Your task to perform on an android device: check out phone information Image 0: 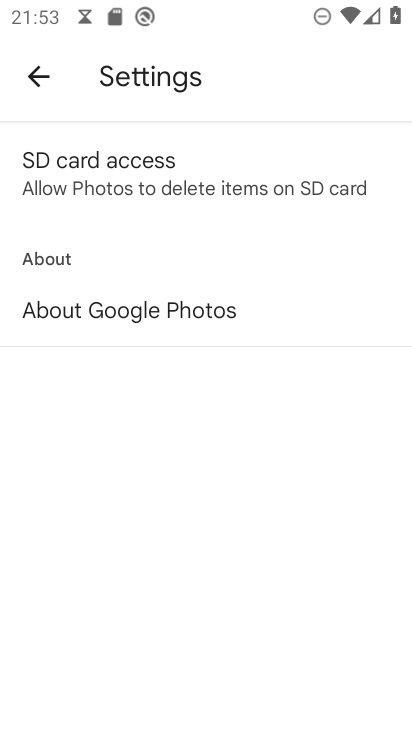
Step 0: press home button
Your task to perform on an android device: check out phone information Image 1: 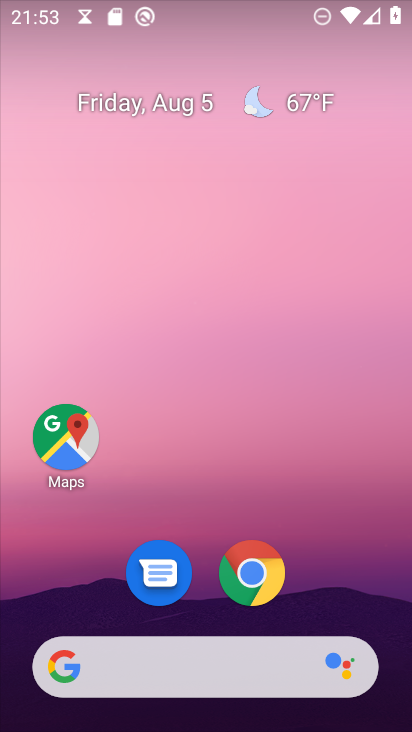
Step 1: drag from (188, 676) to (274, 97)
Your task to perform on an android device: check out phone information Image 2: 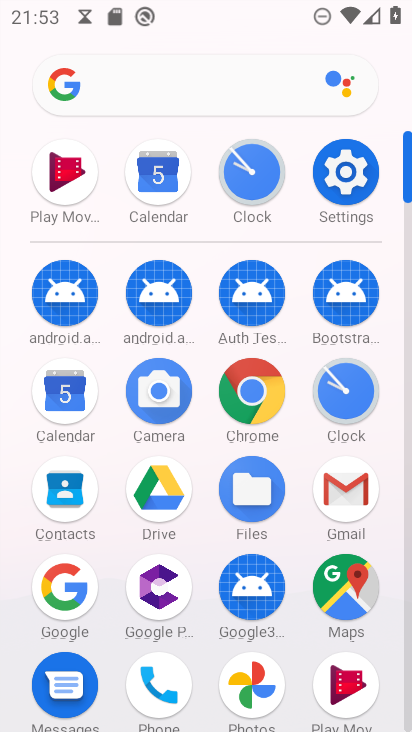
Step 2: drag from (202, 651) to (219, 321)
Your task to perform on an android device: check out phone information Image 3: 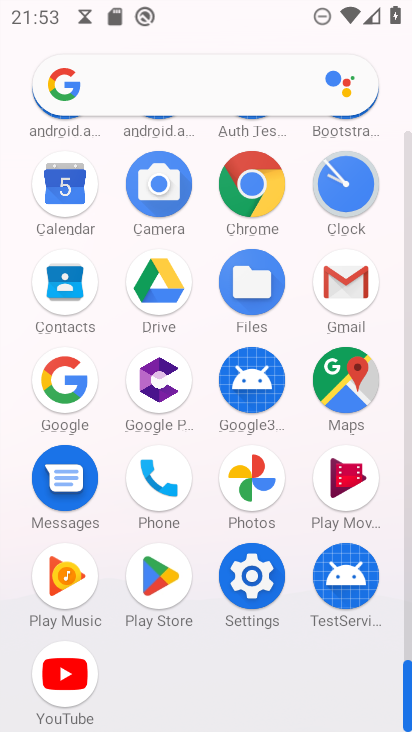
Step 3: click (252, 574)
Your task to perform on an android device: check out phone information Image 4: 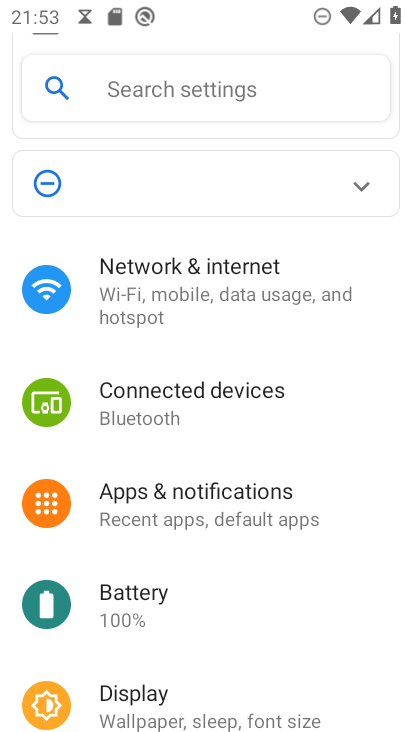
Step 4: drag from (234, 603) to (274, 433)
Your task to perform on an android device: check out phone information Image 5: 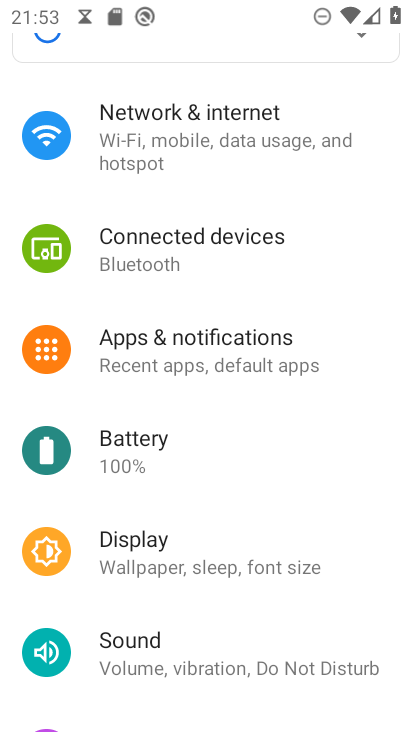
Step 5: drag from (212, 617) to (258, 478)
Your task to perform on an android device: check out phone information Image 6: 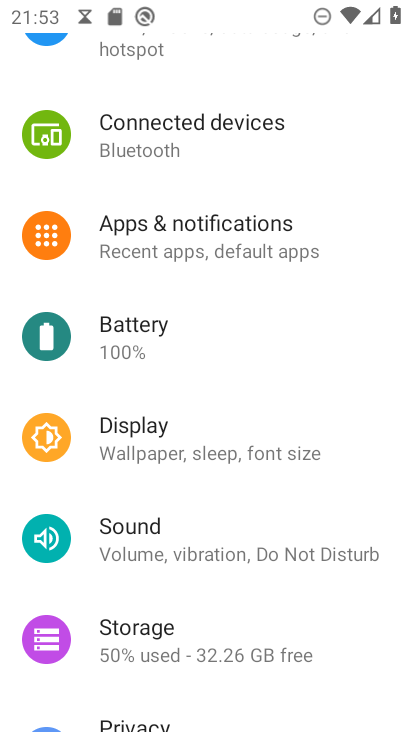
Step 6: drag from (208, 598) to (291, 461)
Your task to perform on an android device: check out phone information Image 7: 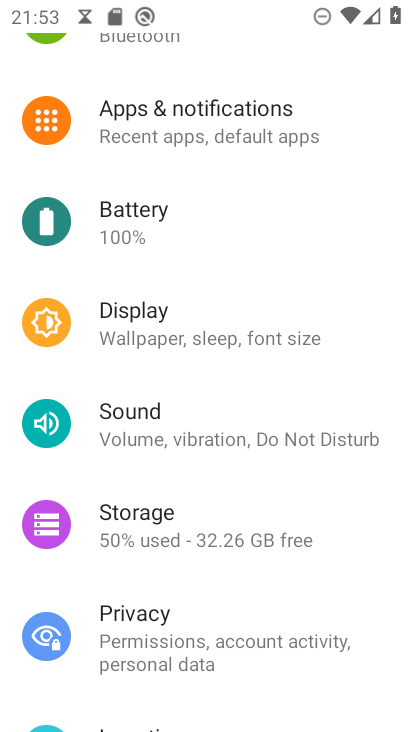
Step 7: drag from (252, 680) to (283, 569)
Your task to perform on an android device: check out phone information Image 8: 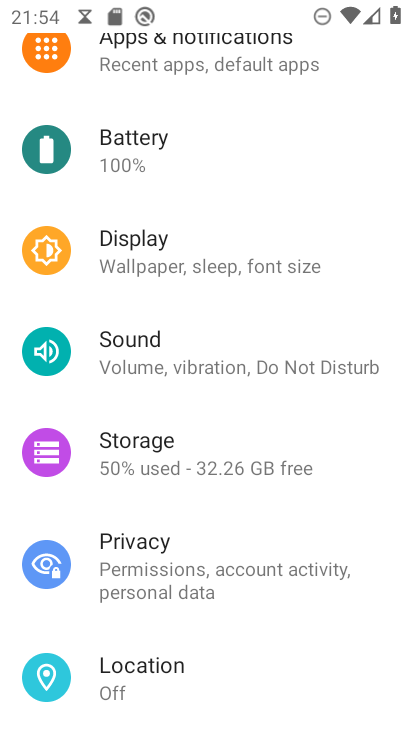
Step 8: drag from (203, 647) to (235, 412)
Your task to perform on an android device: check out phone information Image 9: 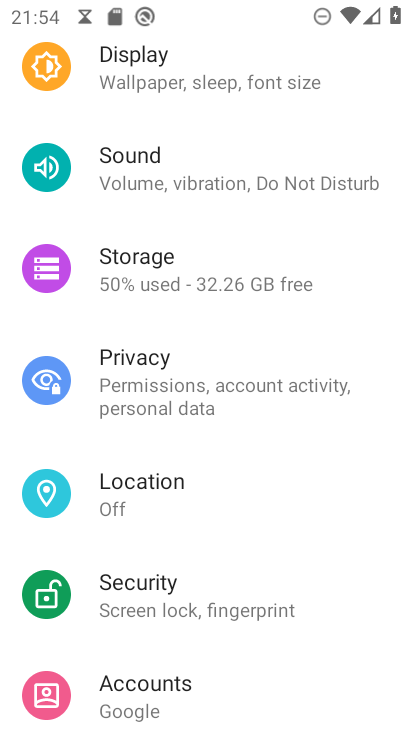
Step 9: drag from (228, 629) to (251, 535)
Your task to perform on an android device: check out phone information Image 10: 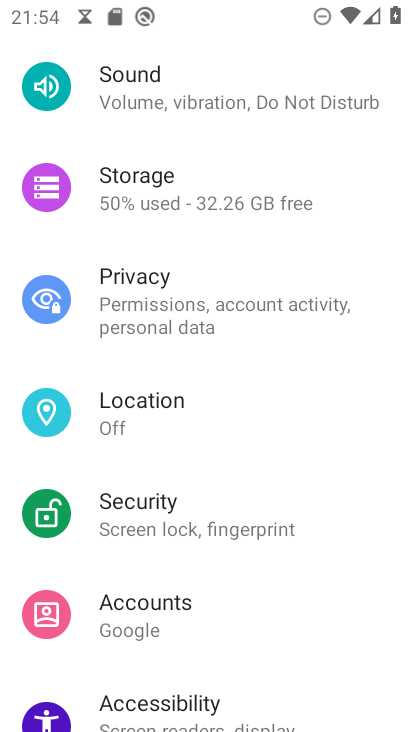
Step 10: drag from (224, 594) to (291, 453)
Your task to perform on an android device: check out phone information Image 11: 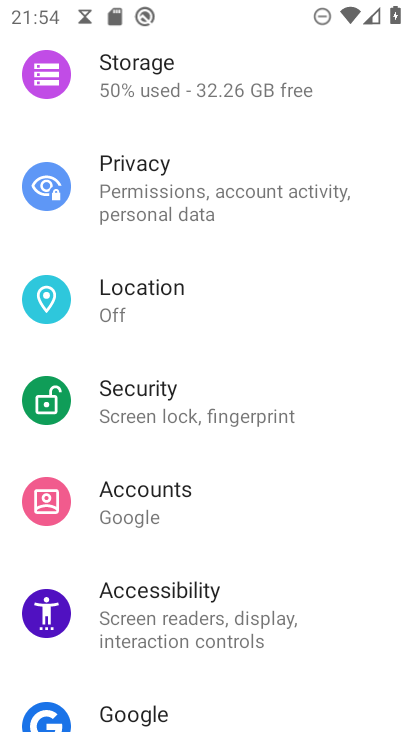
Step 11: drag from (252, 555) to (302, 394)
Your task to perform on an android device: check out phone information Image 12: 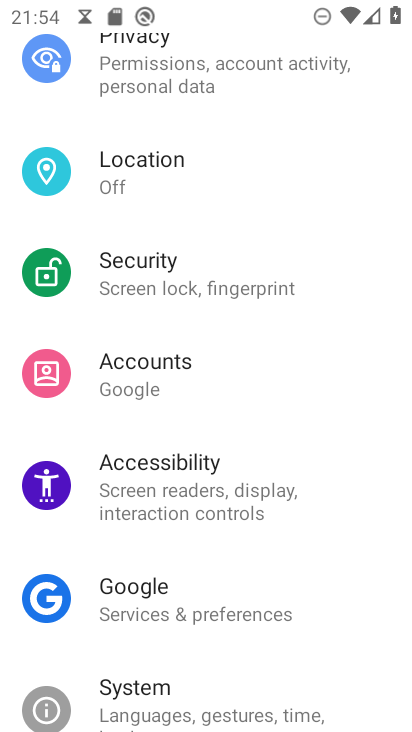
Step 12: drag from (175, 565) to (243, 407)
Your task to perform on an android device: check out phone information Image 13: 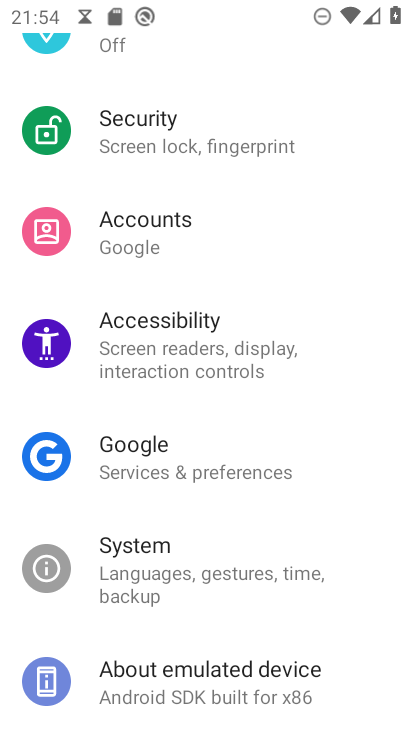
Step 13: drag from (214, 641) to (256, 507)
Your task to perform on an android device: check out phone information Image 14: 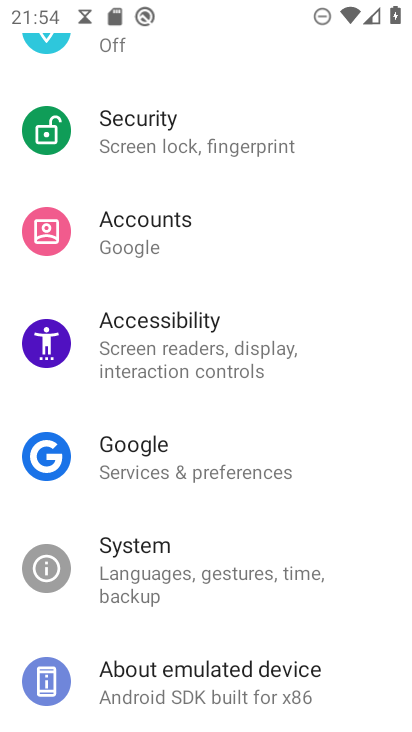
Step 14: click (230, 665)
Your task to perform on an android device: check out phone information Image 15: 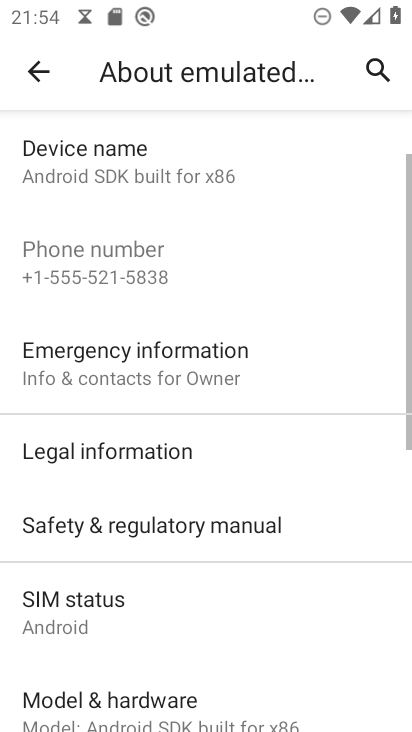
Step 15: task complete